Your task to perform on an android device: add a contact in the contacts app Image 0: 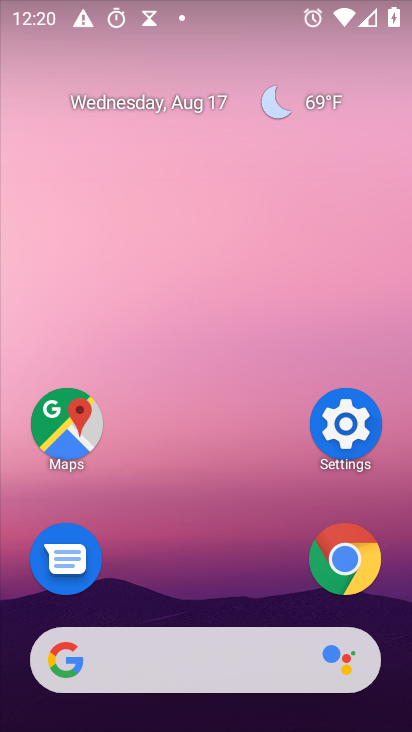
Step 0: drag from (204, 628) to (246, 188)
Your task to perform on an android device: add a contact in the contacts app Image 1: 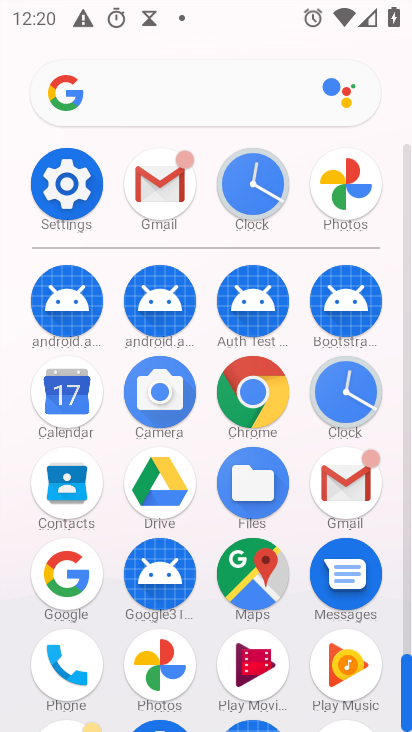
Step 1: click (62, 478)
Your task to perform on an android device: add a contact in the contacts app Image 2: 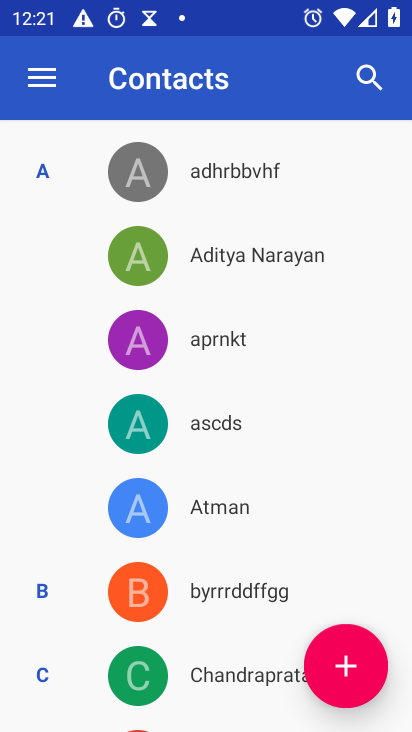
Step 2: click (350, 661)
Your task to perform on an android device: add a contact in the contacts app Image 3: 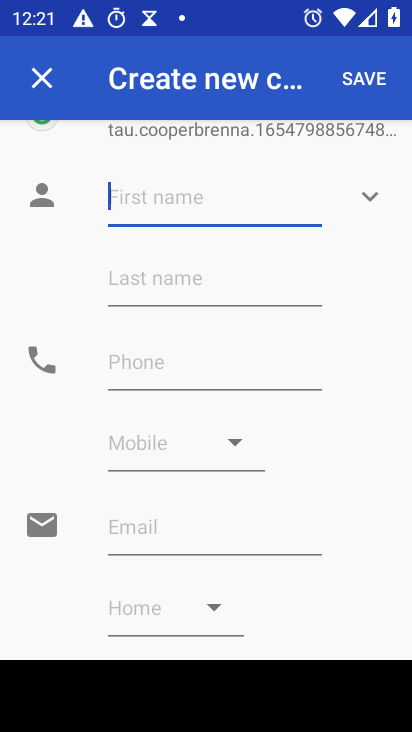
Step 3: type "sdffrree"
Your task to perform on an android device: add a contact in the contacts app Image 4: 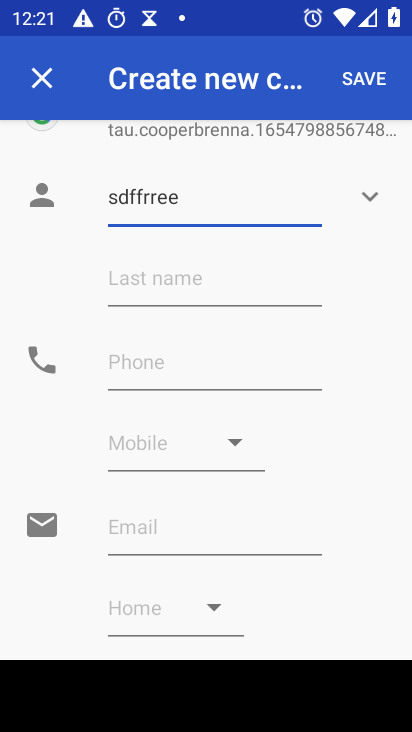
Step 4: click (129, 355)
Your task to perform on an android device: add a contact in the contacts app Image 5: 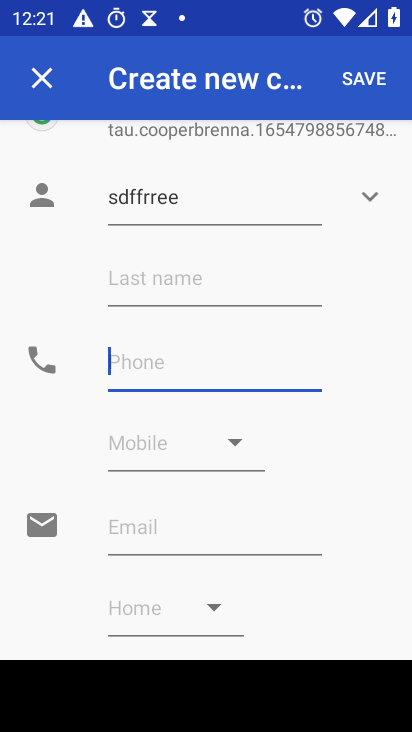
Step 5: type "443322255"
Your task to perform on an android device: add a contact in the contacts app Image 6: 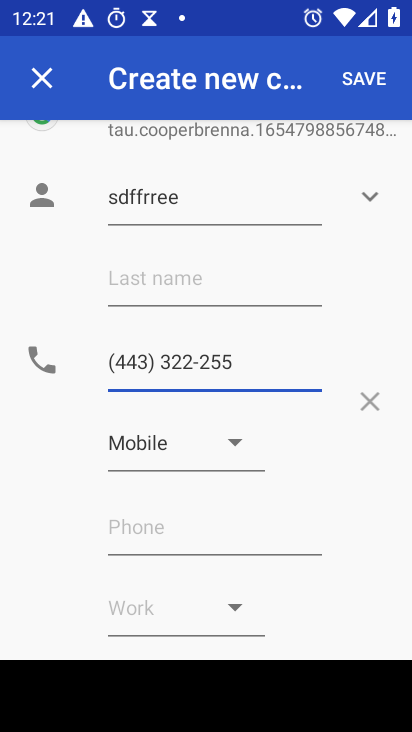
Step 6: click (362, 74)
Your task to perform on an android device: add a contact in the contacts app Image 7: 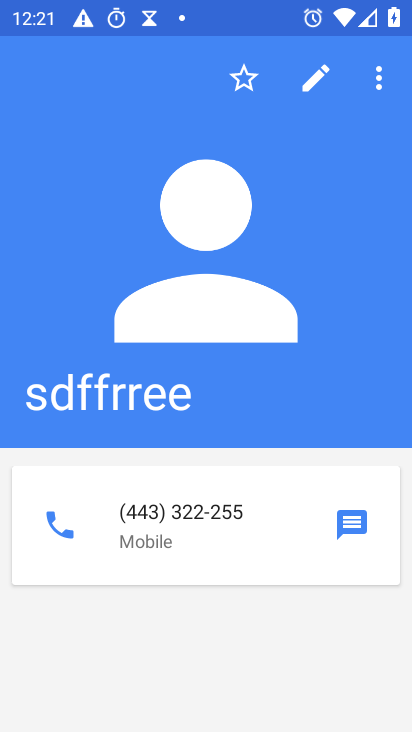
Step 7: task complete